Your task to perform on an android device: Go to settings Image 0: 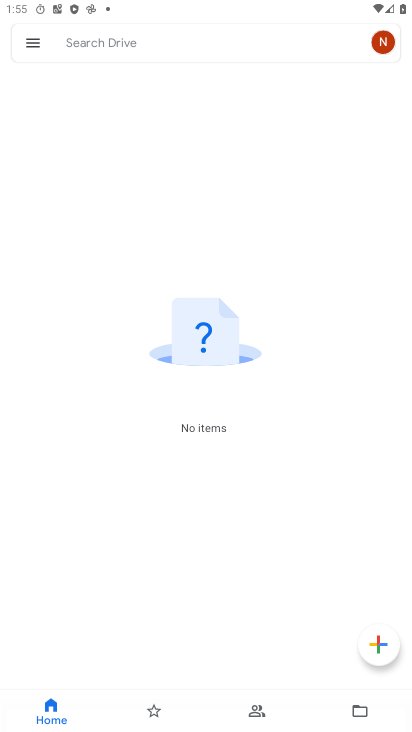
Step 0: press home button
Your task to perform on an android device: Go to settings Image 1: 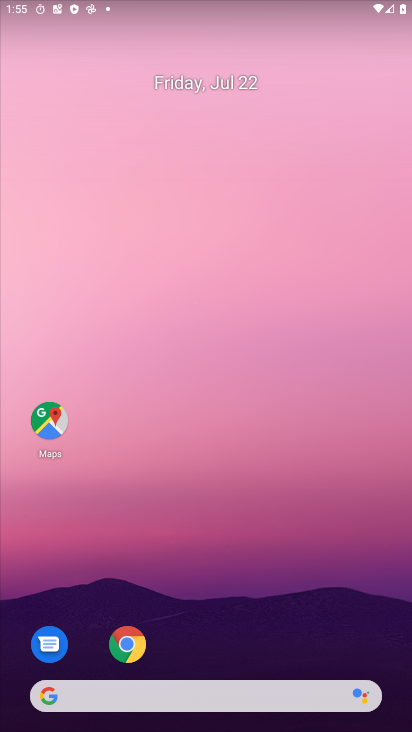
Step 1: drag from (221, 712) to (267, 169)
Your task to perform on an android device: Go to settings Image 2: 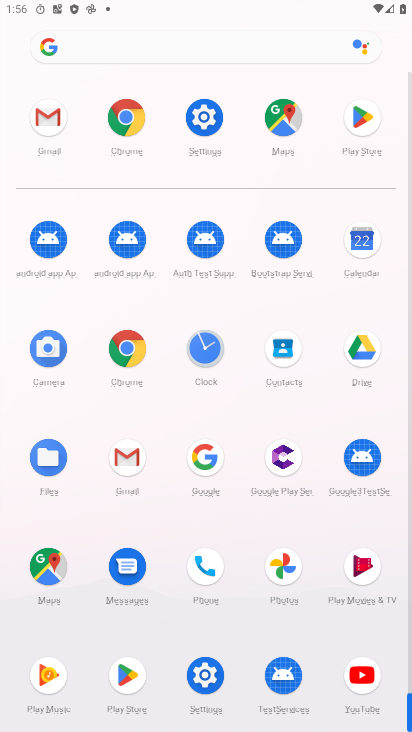
Step 2: click (211, 157)
Your task to perform on an android device: Go to settings Image 3: 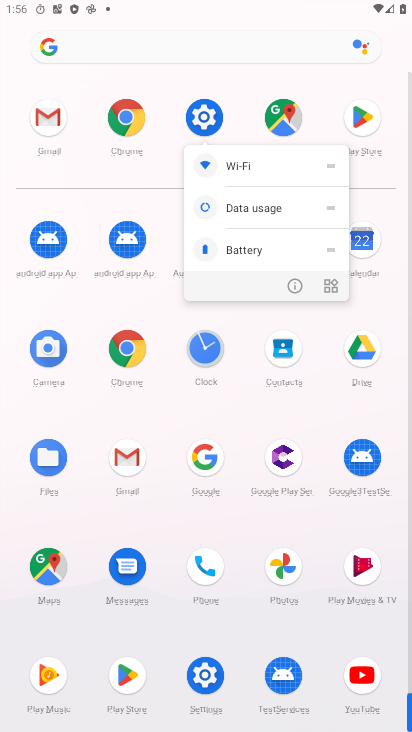
Step 3: click (202, 111)
Your task to perform on an android device: Go to settings Image 4: 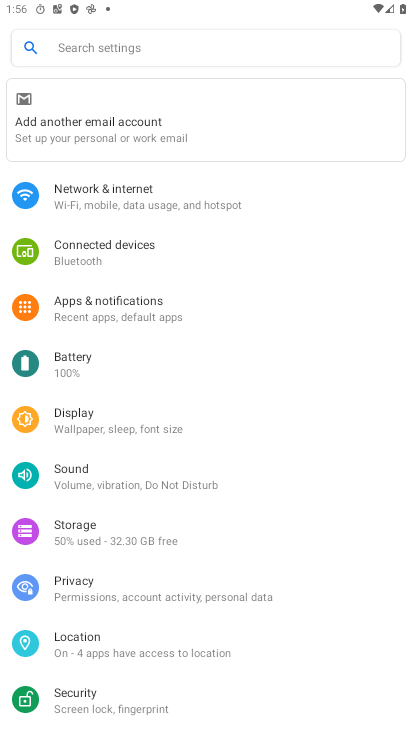
Step 4: task complete